Your task to perform on an android device: Open settings on Google Maps Image 0: 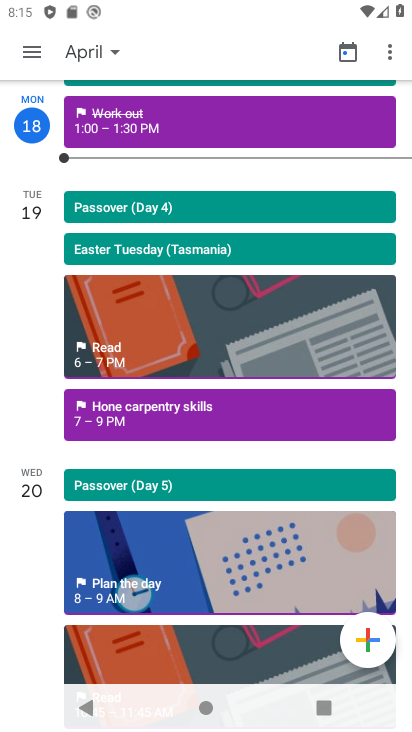
Step 0: press home button
Your task to perform on an android device: Open settings on Google Maps Image 1: 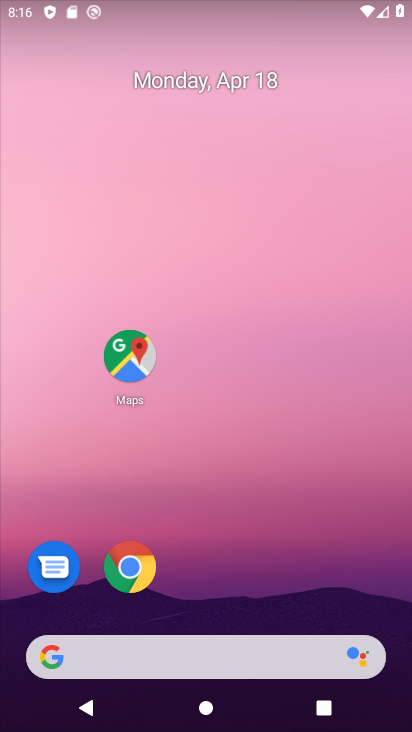
Step 1: click (147, 372)
Your task to perform on an android device: Open settings on Google Maps Image 2: 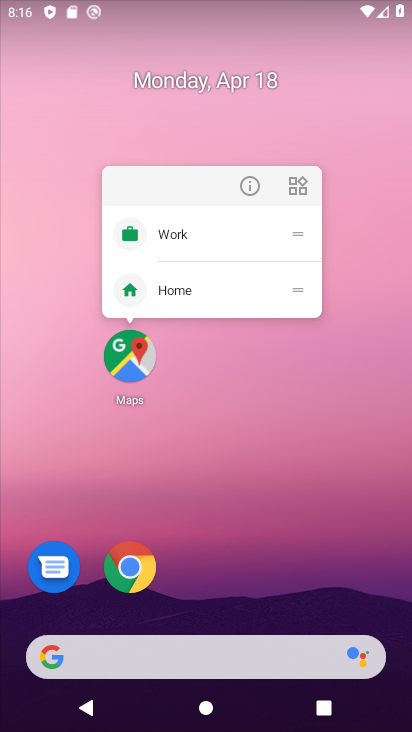
Step 2: click (133, 369)
Your task to perform on an android device: Open settings on Google Maps Image 3: 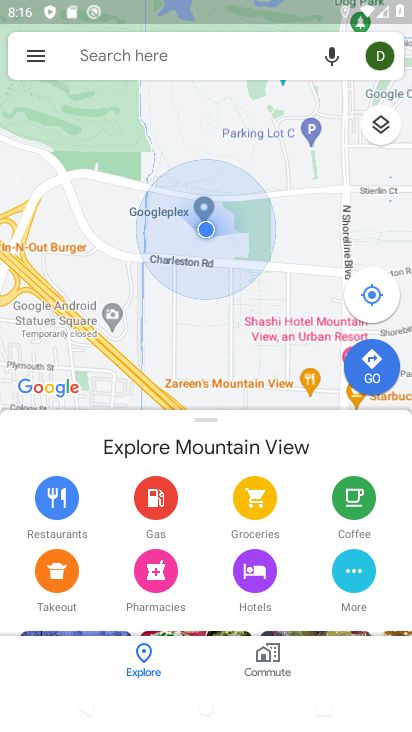
Step 3: click (32, 71)
Your task to perform on an android device: Open settings on Google Maps Image 4: 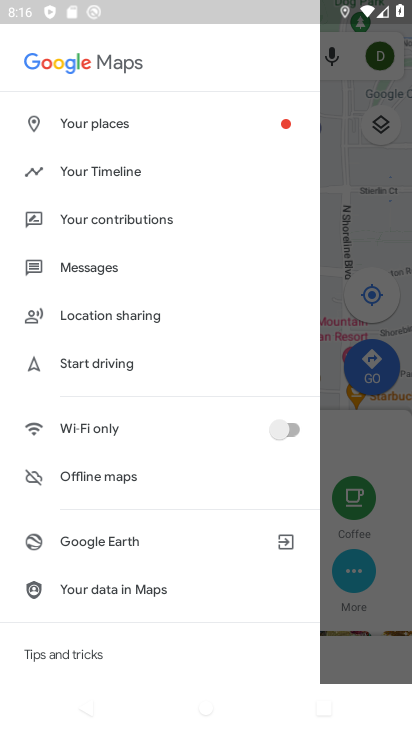
Step 4: drag from (110, 571) to (132, 342)
Your task to perform on an android device: Open settings on Google Maps Image 5: 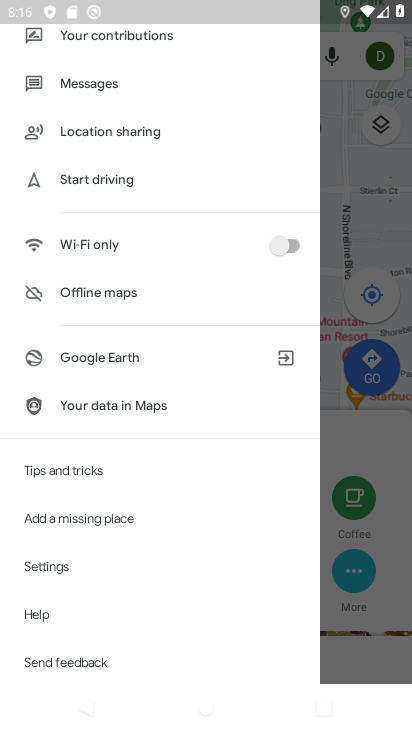
Step 5: click (56, 574)
Your task to perform on an android device: Open settings on Google Maps Image 6: 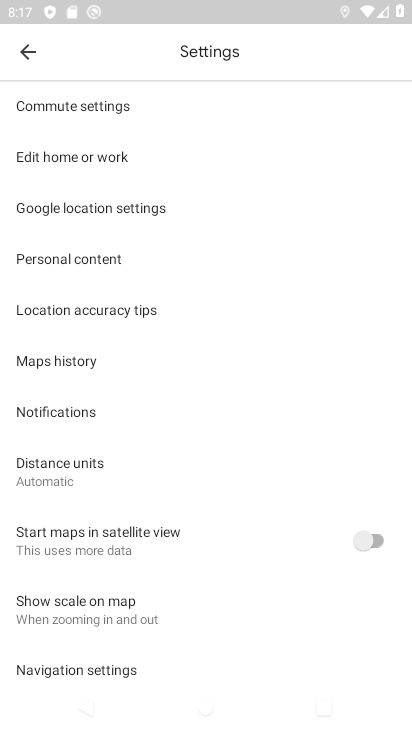
Step 6: task complete